Your task to perform on an android device: What's the latest news in tech? Image 0: 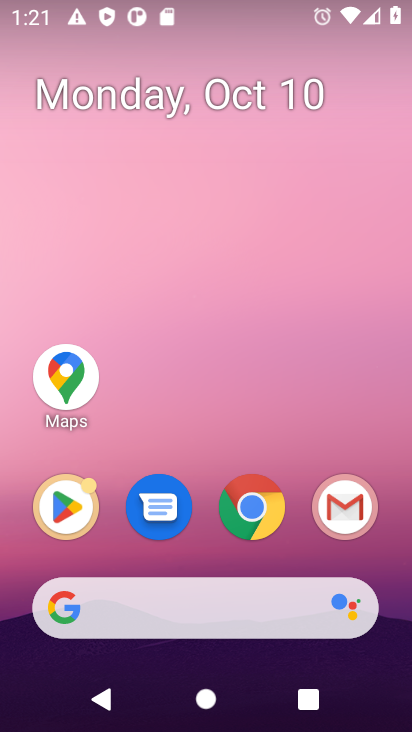
Step 0: press home button
Your task to perform on an android device: What's the latest news in tech? Image 1: 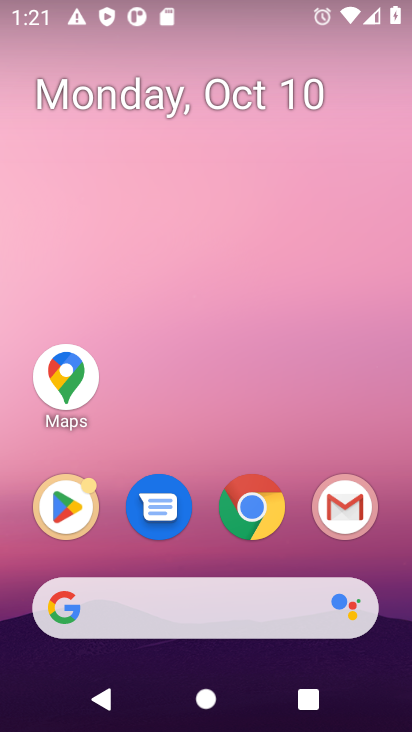
Step 1: click (219, 606)
Your task to perform on an android device: What's the latest news in tech? Image 2: 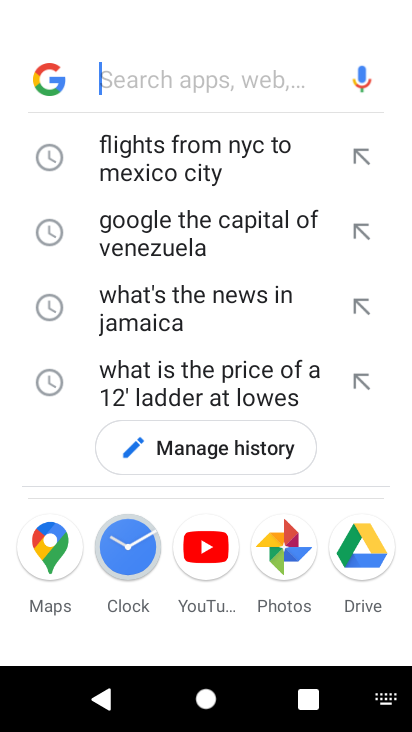
Step 2: type "What's the latest news in tech?"
Your task to perform on an android device: What's the latest news in tech? Image 3: 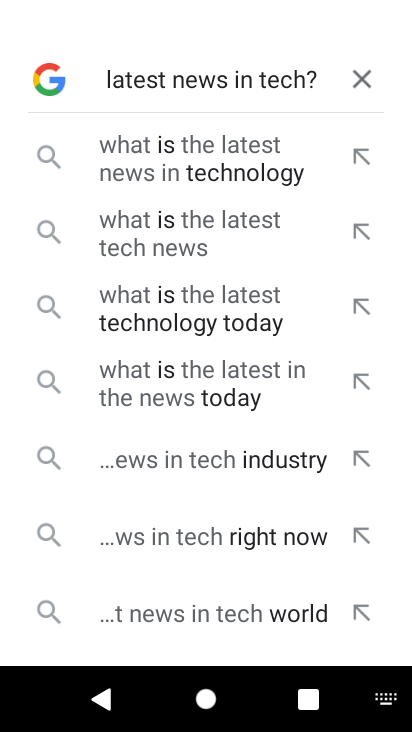
Step 3: press enter
Your task to perform on an android device: What's the latest news in tech? Image 4: 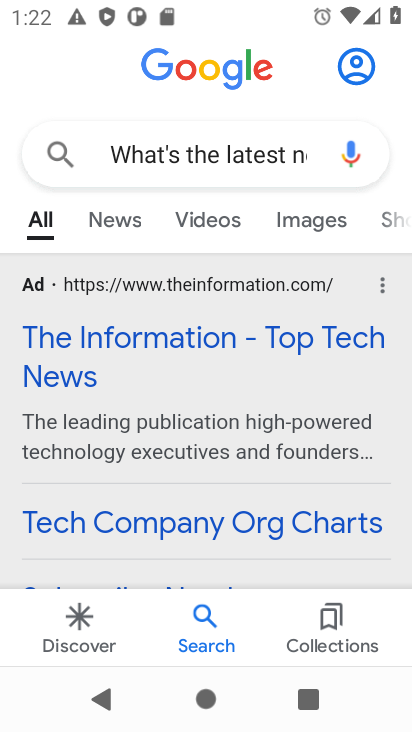
Step 4: drag from (351, 478) to (351, 369)
Your task to perform on an android device: What's the latest news in tech? Image 5: 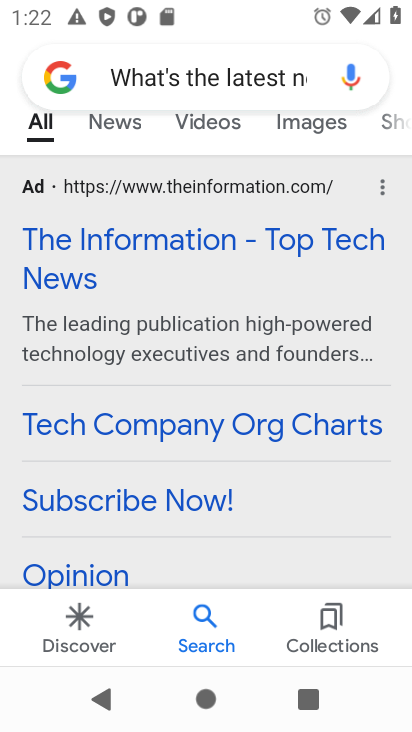
Step 5: click (263, 255)
Your task to perform on an android device: What's the latest news in tech? Image 6: 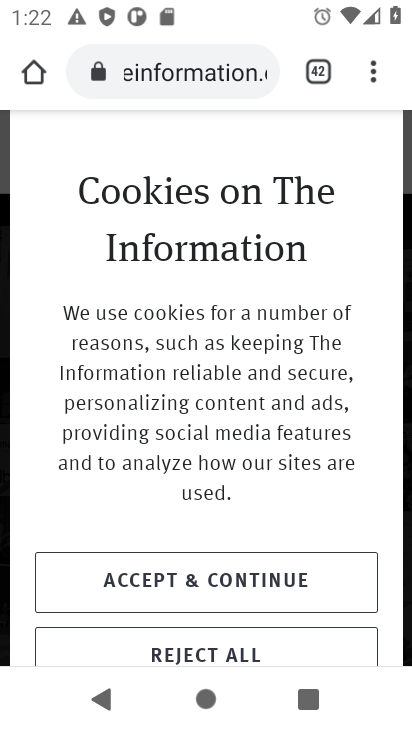
Step 6: click (290, 572)
Your task to perform on an android device: What's the latest news in tech? Image 7: 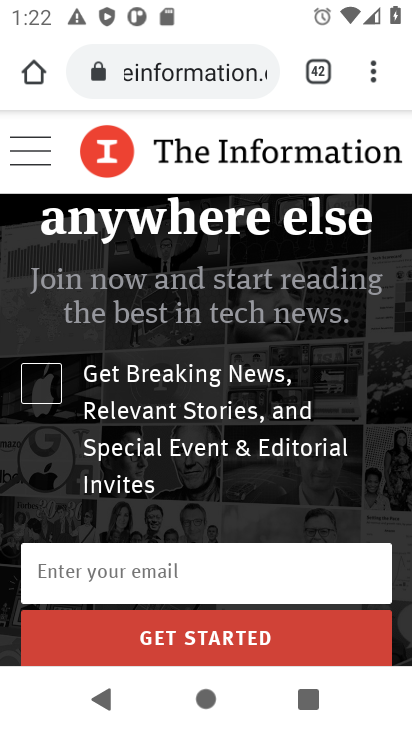
Step 7: task complete